Your task to perform on an android device: change text size in settings app Image 0: 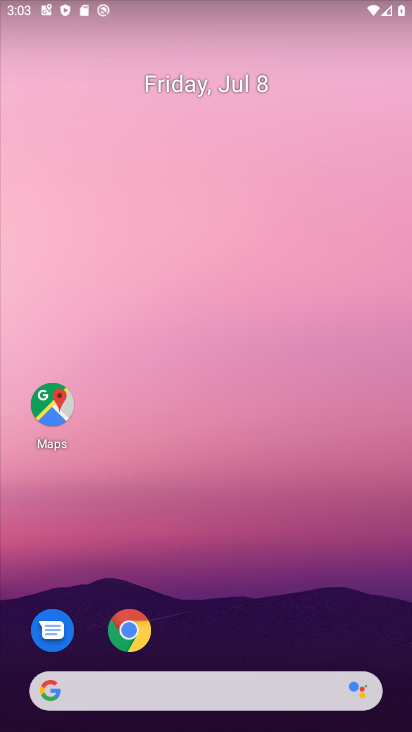
Step 0: drag from (329, 631) to (265, 271)
Your task to perform on an android device: change text size in settings app Image 1: 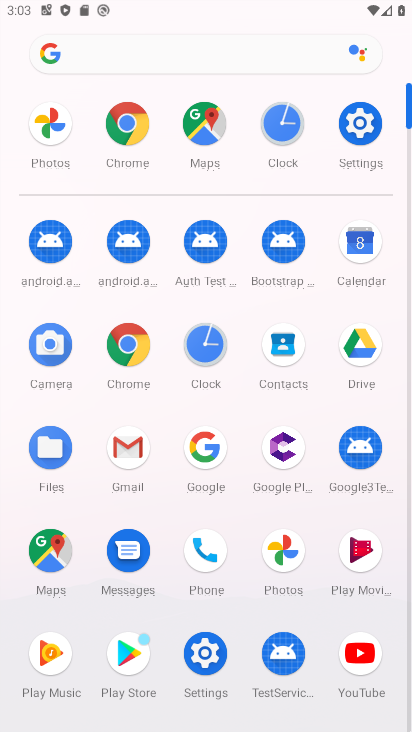
Step 1: click (380, 131)
Your task to perform on an android device: change text size in settings app Image 2: 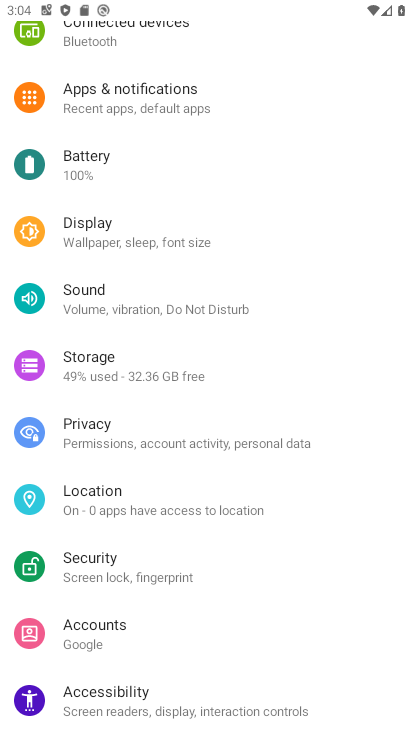
Step 2: drag from (207, 477) to (153, 122)
Your task to perform on an android device: change text size in settings app Image 3: 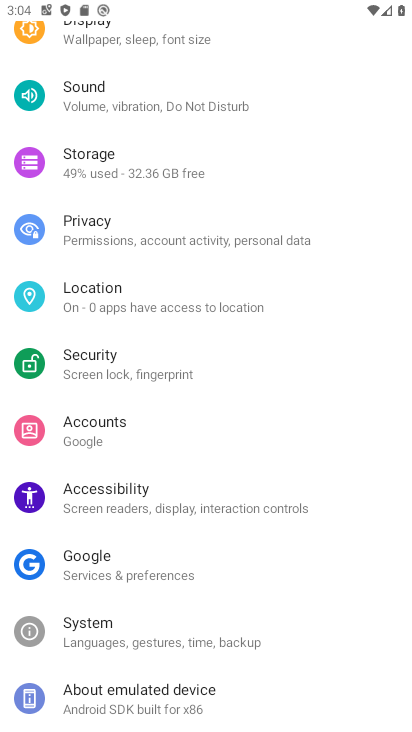
Step 3: drag from (121, 219) to (128, 695)
Your task to perform on an android device: change text size in settings app Image 4: 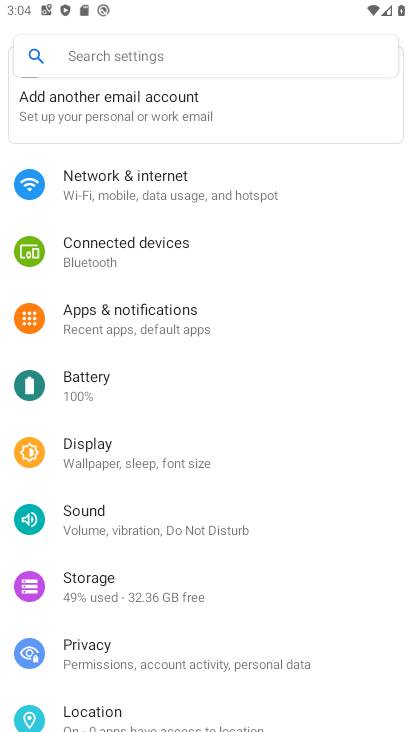
Step 4: drag from (155, 439) to (146, 297)
Your task to perform on an android device: change text size in settings app Image 5: 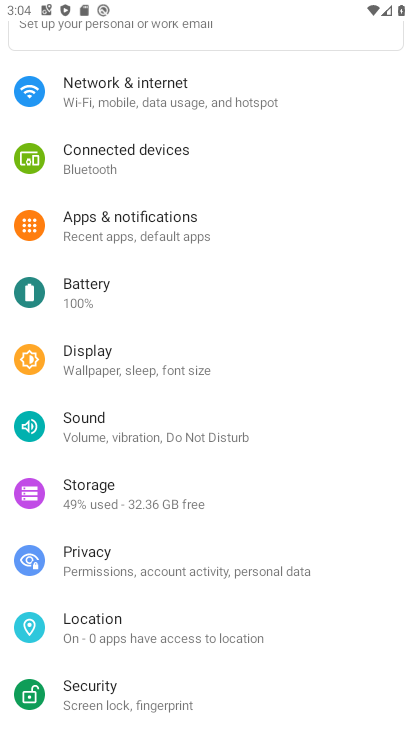
Step 5: drag from (150, 634) to (111, 361)
Your task to perform on an android device: change text size in settings app Image 6: 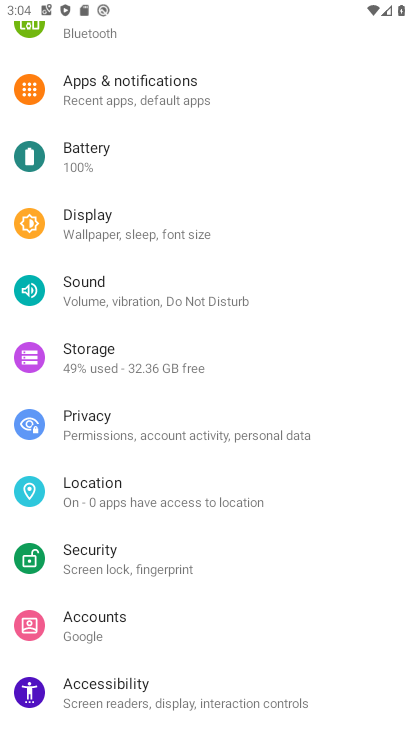
Step 6: click (137, 222)
Your task to perform on an android device: change text size in settings app Image 7: 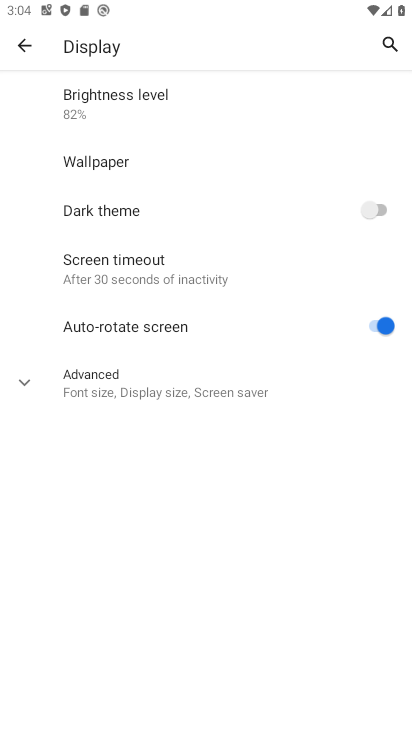
Step 7: click (176, 370)
Your task to perform on an android device: change text size in settings app Image 8: 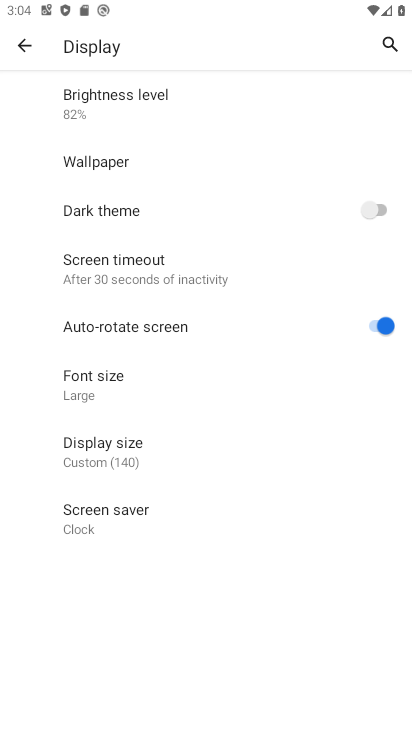
Step 8: click (176, 370)
Your task to perform on an android device: change text size in settings app Image 9: 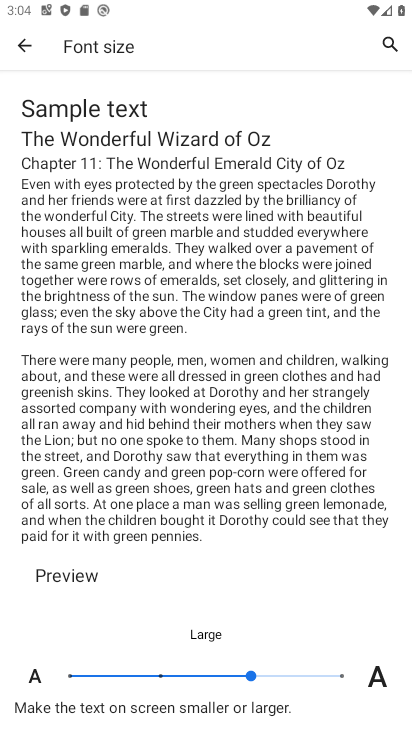
Step 9: click (193, 678)
Your task to perform on an android device: change text size in settings app Image 10: 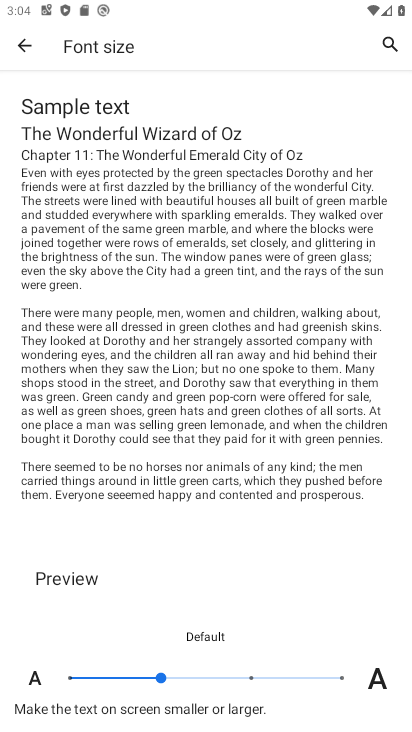
Step 10: task complete